Your task to perform on an android device: toggle notifications settings in the gmail app Image 0: 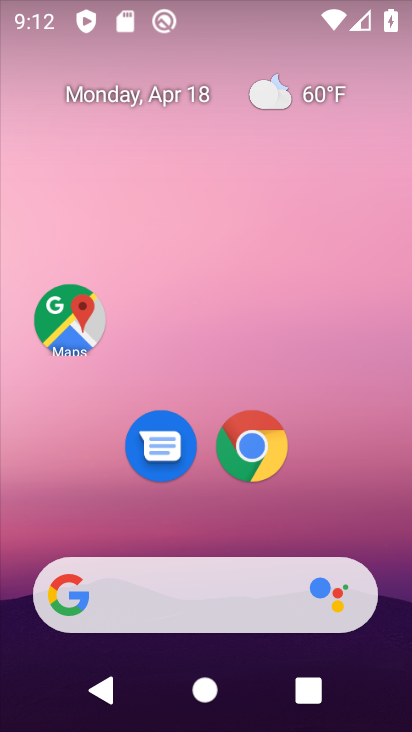
Step 0: drag from (260, 516) to (260, 178)
Your task to perform on an android device: toggle notifications settings in the gmail app Image 1: 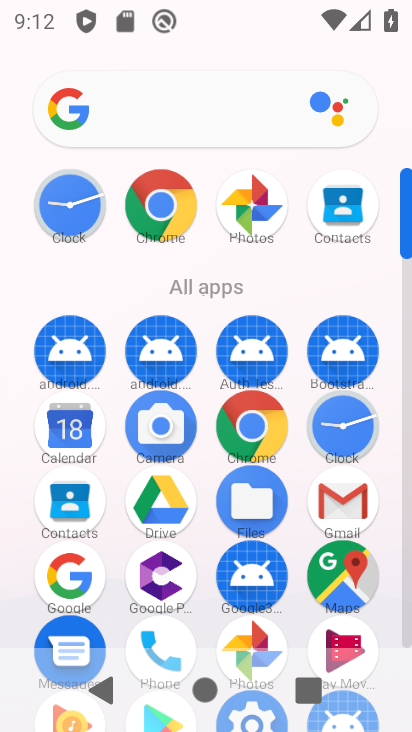
Step 1: click (350, 504)
Your task to perform on an android device: toggle notifications settings in the gmail app Image 2: 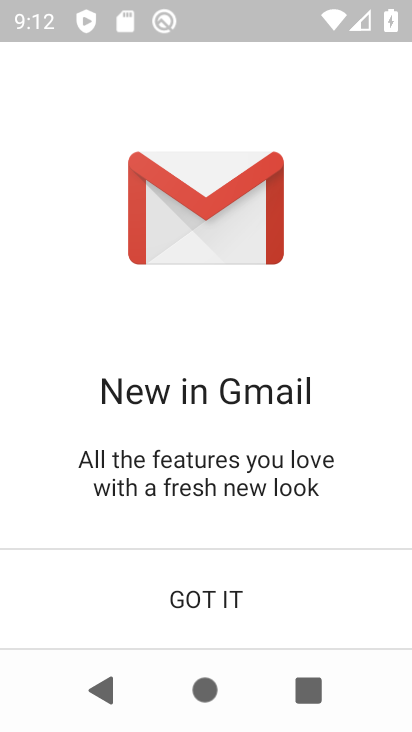
Step 2: click (152, 585)
Your task to perform on an android device: toggle notifications settings in the gmail app Image 3: 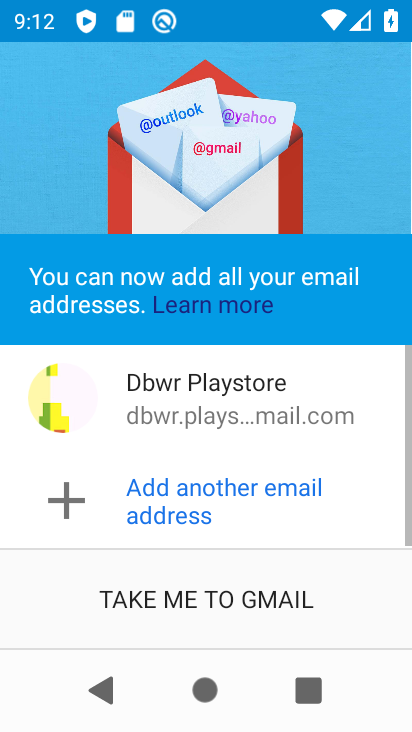
Step 3: click (151, 583)
Your task to perform on an android device: toggle notifications settings in the gmail app Image 4: 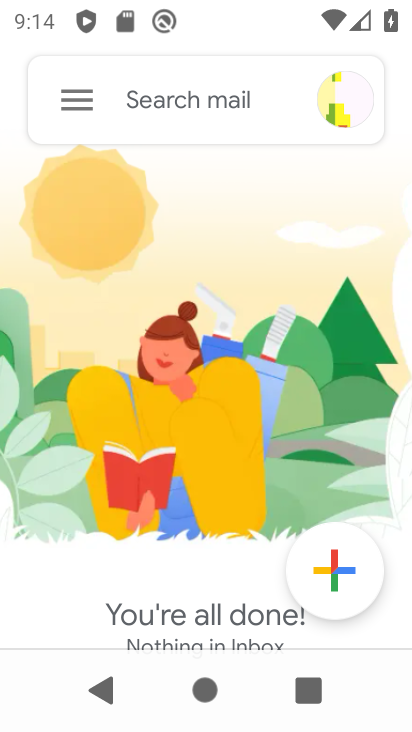
Step 4: click (89, 97)
Your task to perform on an android device: toggle notifications settings in the gmail app Image 5: 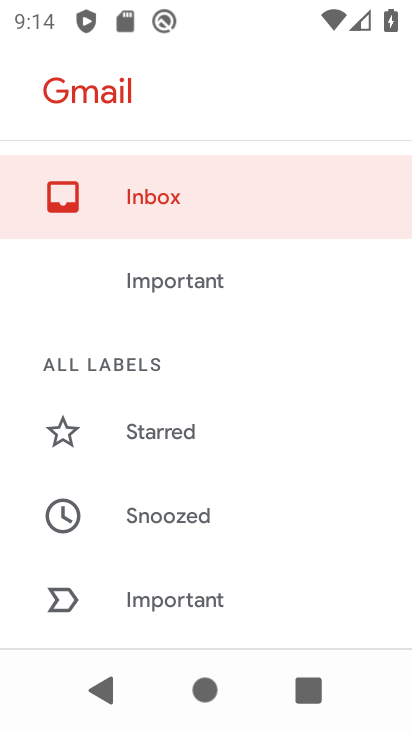
Step 5: drag from (190, 327) to (240, 104)
Your task to perform on an android device: toggle notifications settings in the gmail app Image 6: 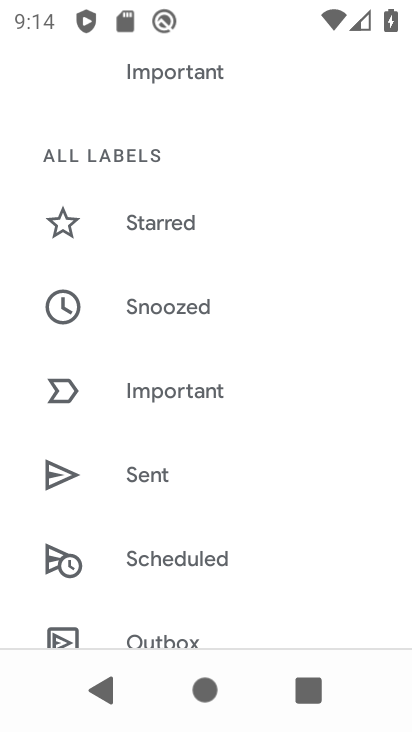
Step 6: drag from (120, 558) to (249, 52)
Your task to perform on an android device: toggle notifications settings in the gmail app Image 7: 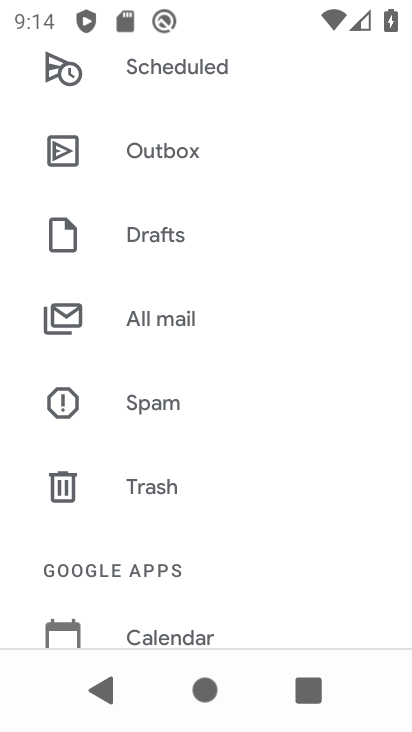
Step 7: drag from (178, 507) to (256, 69)
Your task to perform on an android device: toggle notifications settings in the gmail app Image 8: 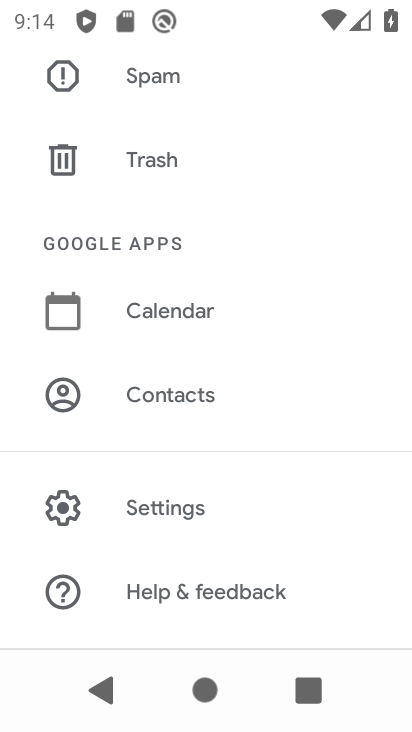
Step 8: click (173, 490)
Your task to perform on an android device: toggle notifications settings in the gmail app Image 9: 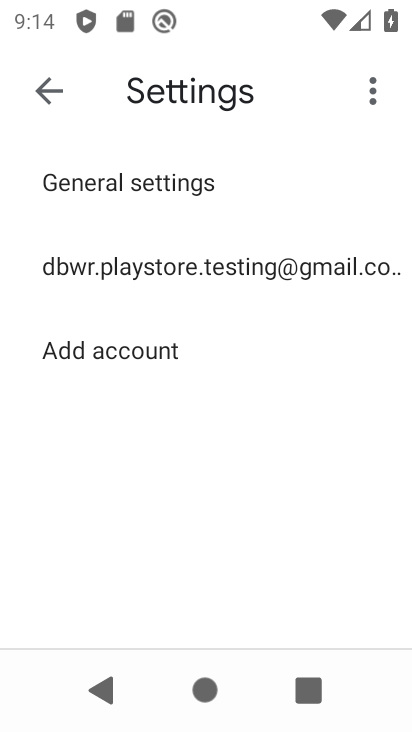
Step 9: click (211, 265)
Your task to perform on an android device: toggle notifications settings in the gmail app Image 10: 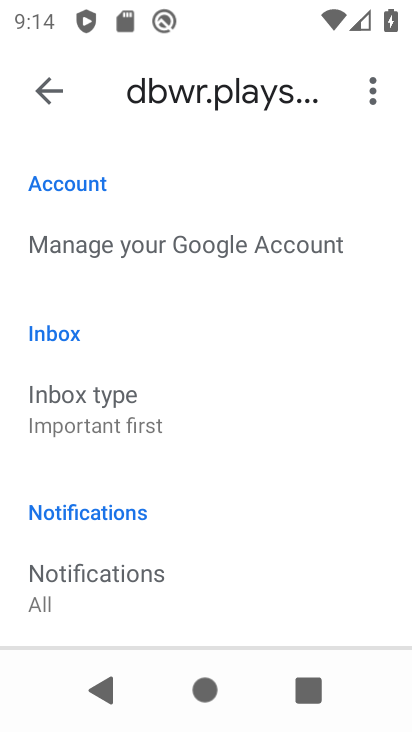
Step 10: click (157, 571)
Your task to perform on an android device: toggle notifications settings in the gmail app Image 11: 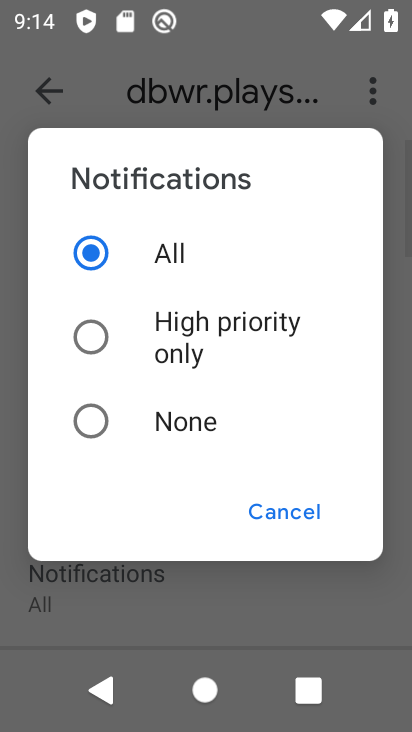
Step 11: click (192, 315)
Your task to perform on an android device: toggle notifications settings in the gmail app Image 12: 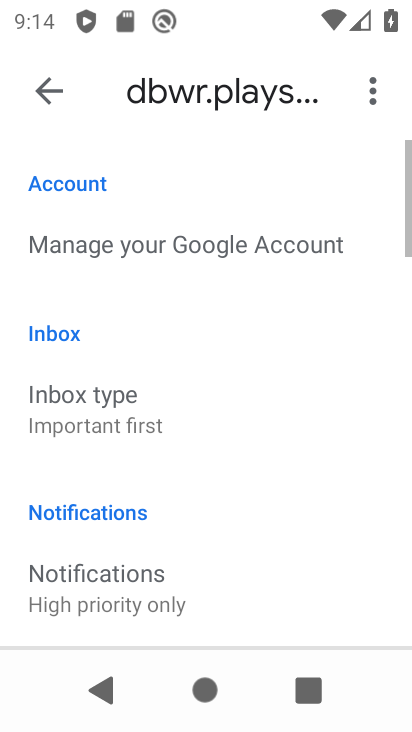
Step 12: task complete